Your task to perform on an android device: turn notification dots on Image 0: 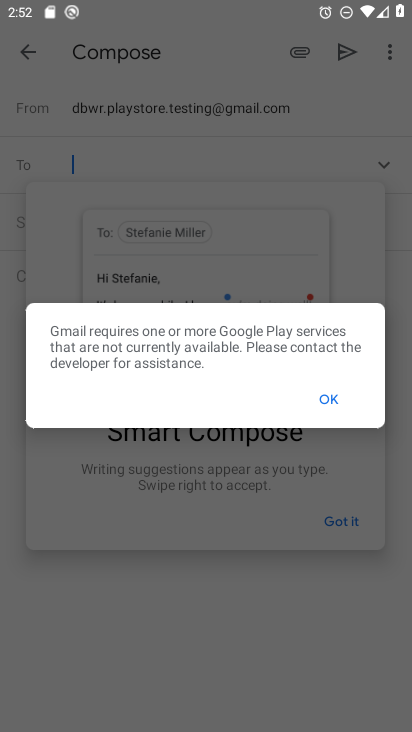
Step 0: press home button
Your task to perform on an android device: turn notification dots on Image 1: 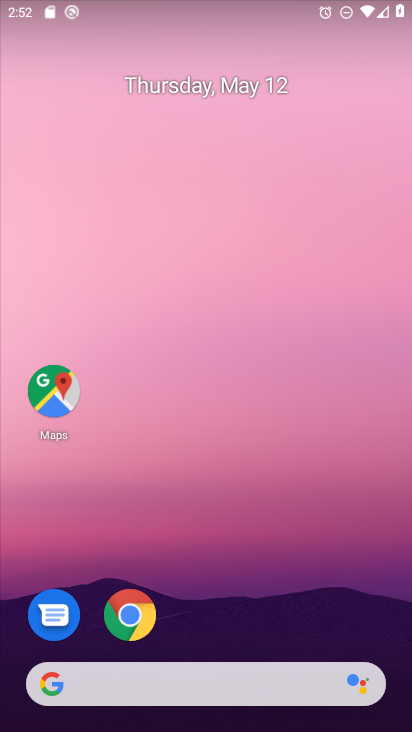
Step 1: drag from (266, 637) to (284, 12)
Your task to perform on an android device: turn notification dots on Image 2: 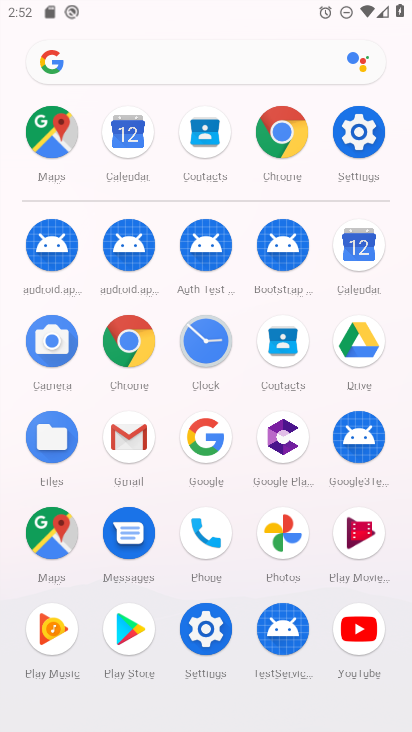
Step 2: click (360, 137)
Your task to perform on an android device: turn notification dots on Image 3: 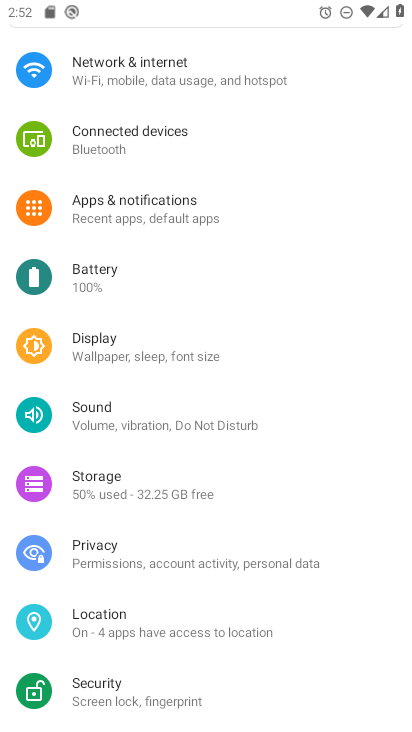
Step 3: click (158, 205)
Your task to perform on an android device: turn notification dots on Image 4: 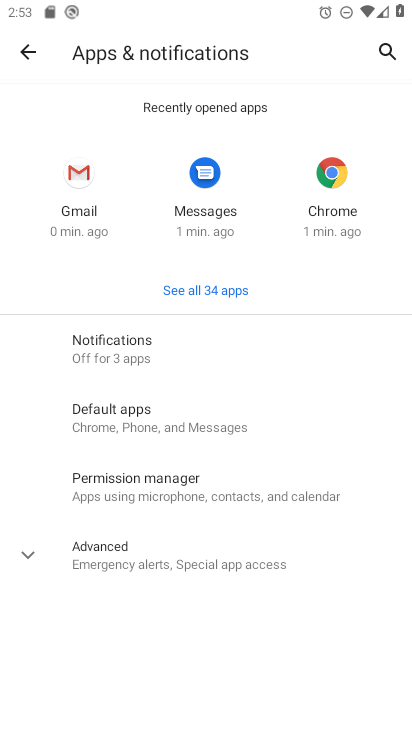
Step 4: click (115, 340)
Your task to perform on an android device: turn notification dots on Image 5: 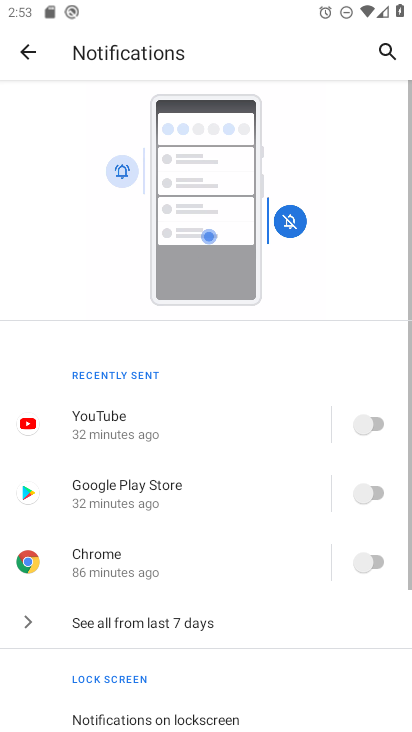
Step 5: drag from (209, 646) to (254, 163)
Your task to perform on an android device: turn notification dots on Image 6: 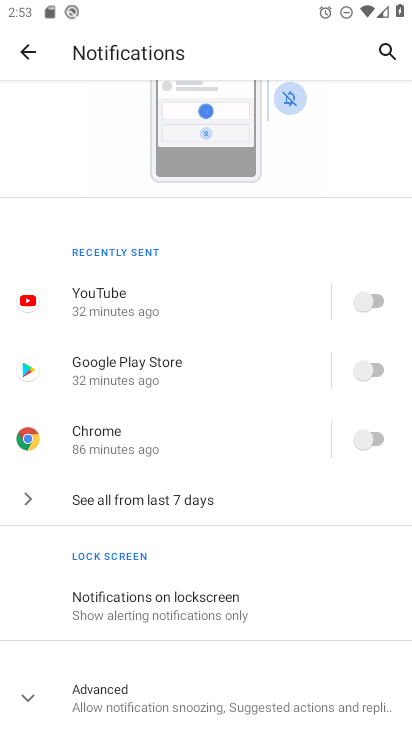
Step 6: click (232, 698)
Your task to perform on an android device: turn notification dots on Image 7: 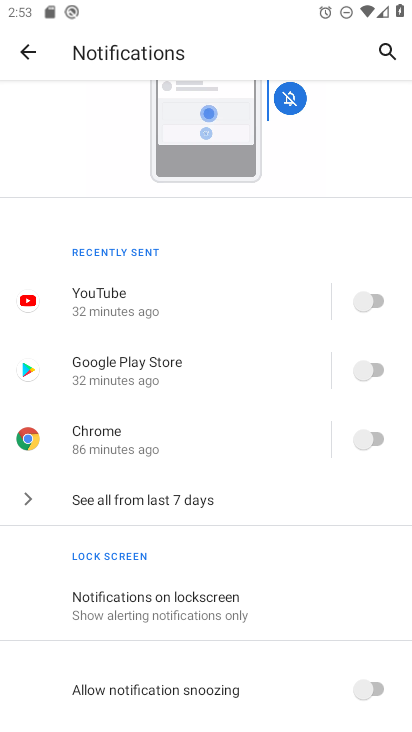
Step 7: task complete